Your task to perform on an android device: turn on bluetooth scan Image 0: 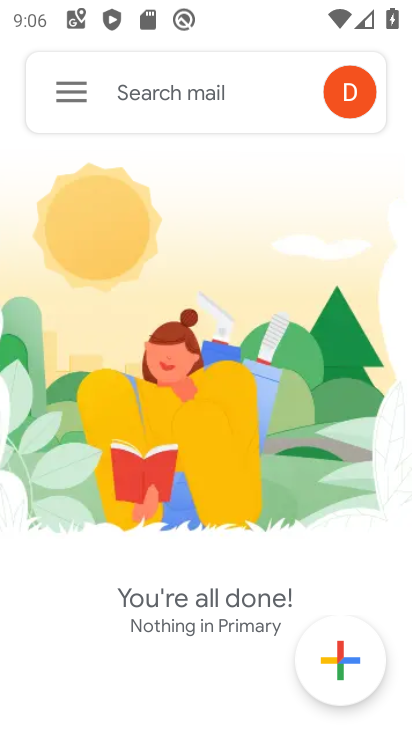
Step 0: press home button
Your task to perform on an android device: turn on bluetooth scan Image 1: 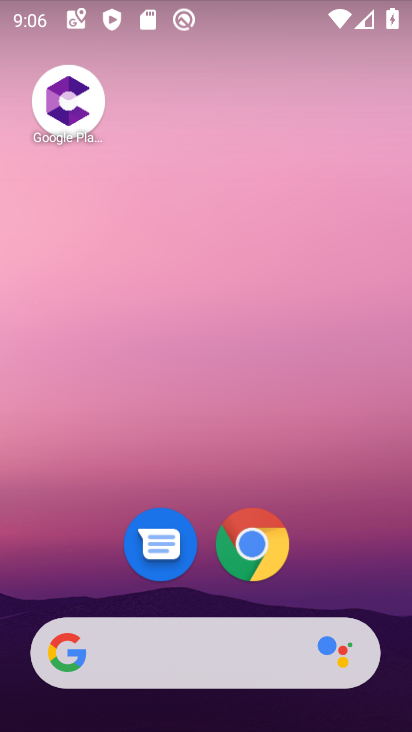
Step 1: drag from (333, 562) to (323, 71)
Your task to perform on an android device: turn on bluetooth scan Image 2: 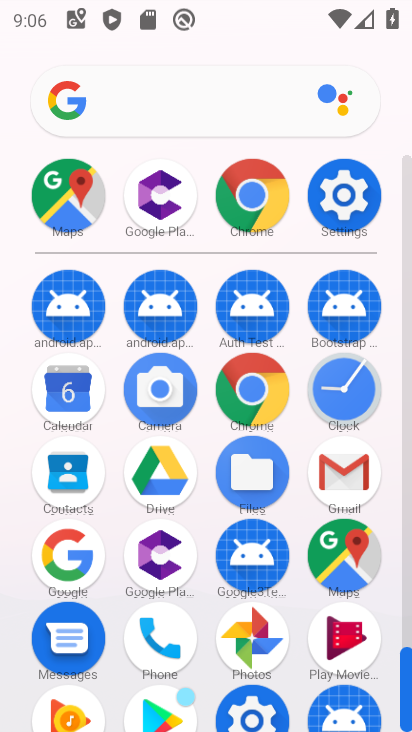
Step 2: click (332, 198)
Your task to perform on an android device: turn on bluetooth scan Image 3: 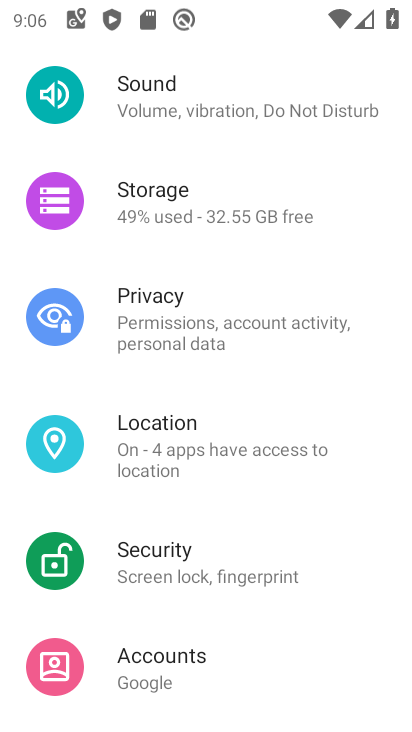
Step 3: click (185, 436)
Your task to perform on an android device: turn on bluetooth scan Image 4: 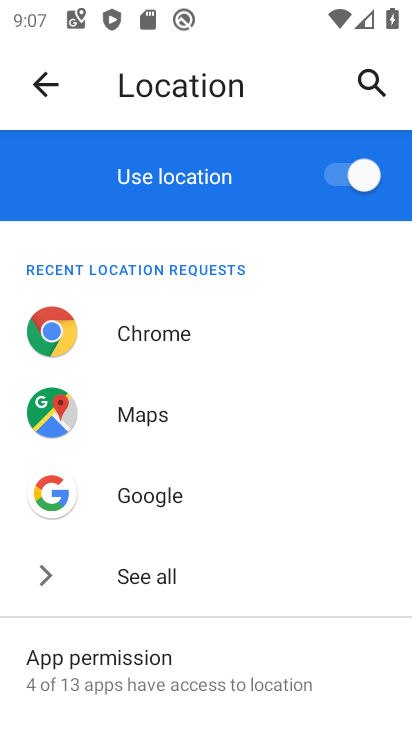
Step 4: drag from (198, 654) to (354, 110)
Your task to perform on an android device: turn on bluetooth scan Image 5: 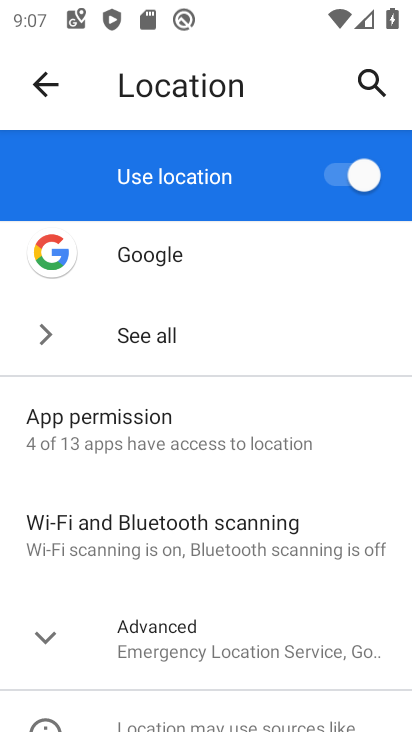
Step 5: click (194, 528)
Your task to perform on an android device: turn on bluetooth scan Image 6: 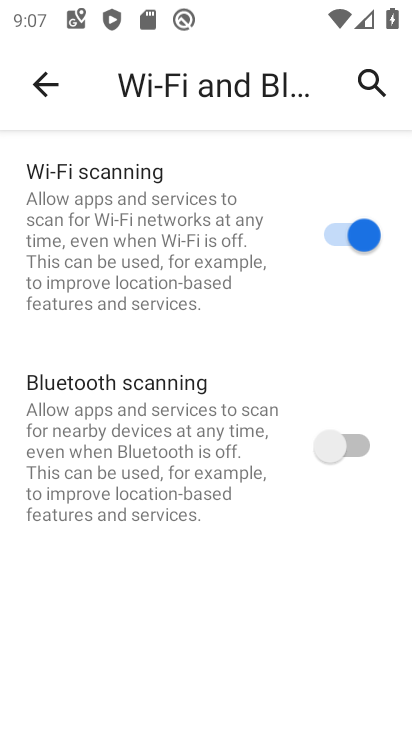
Step 6: click (349, 451)
Your task to perform on an android device: turn on bluetooth scan Image 7: 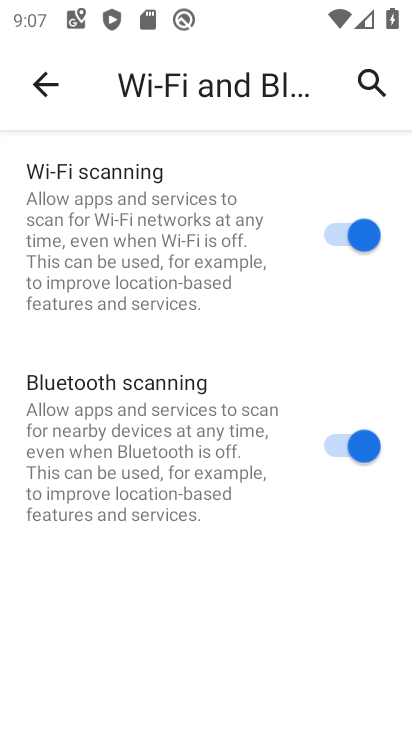
Step 7: task complete